Your task to perform on an android device: Open ESPN.com Image 0: 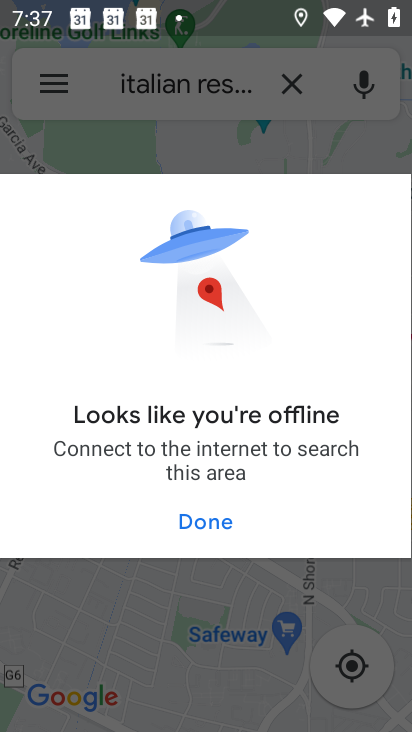
Step 0: press home button
Your task to perform on an android device: Open ESPN.com Image 1: 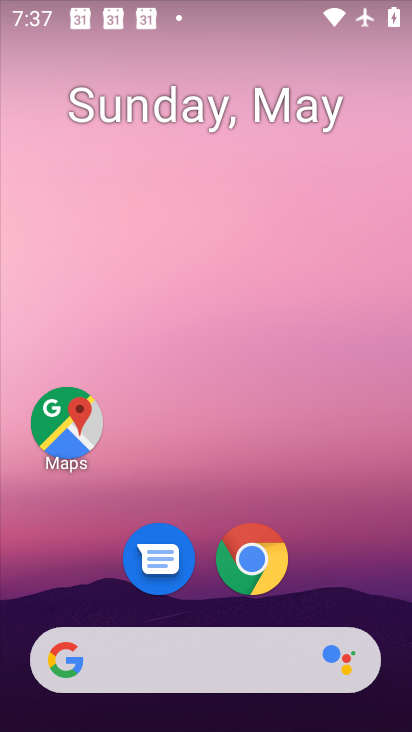
Step 1: click (265, 574)
Your task to perform on an android device: Open ESPN.com Image 2: 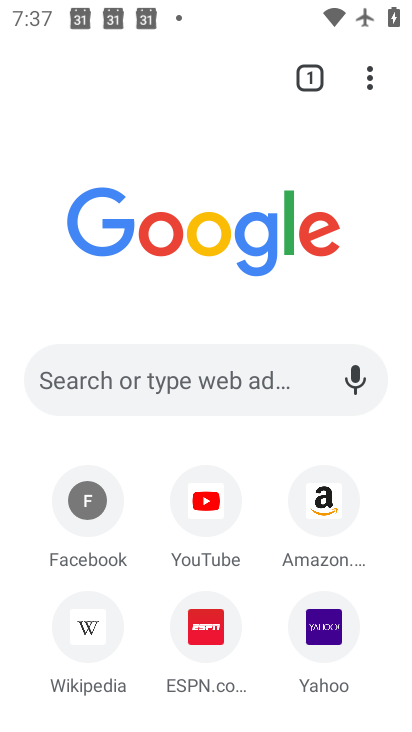
Step 2: click (211, 625)
Your task to perform on an android device: Open ESPN.com Image 3: 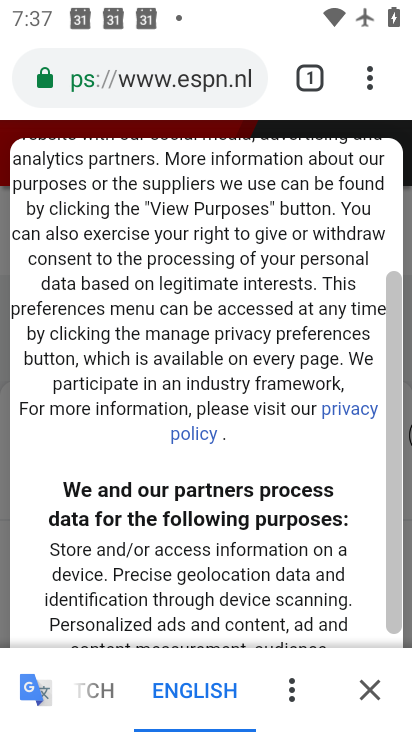
Step 3: drag from (182, 584) to (329, 191)
Your task to perform on an android device: Open ESPN.com Image 4: 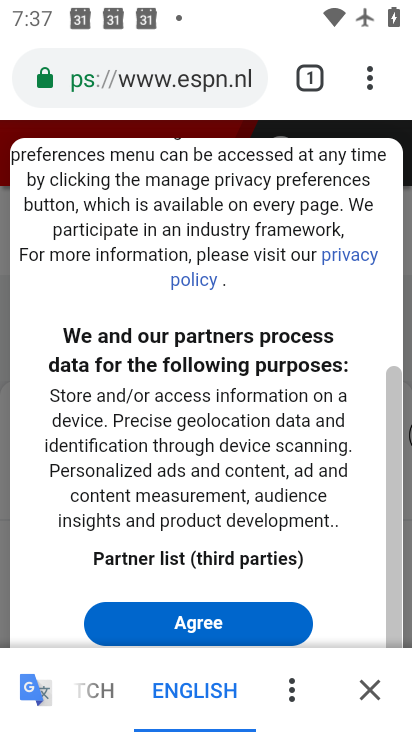
Step 4: click (207, 621)
Your task to perform on an android device: Open ESPN.com Image 5: 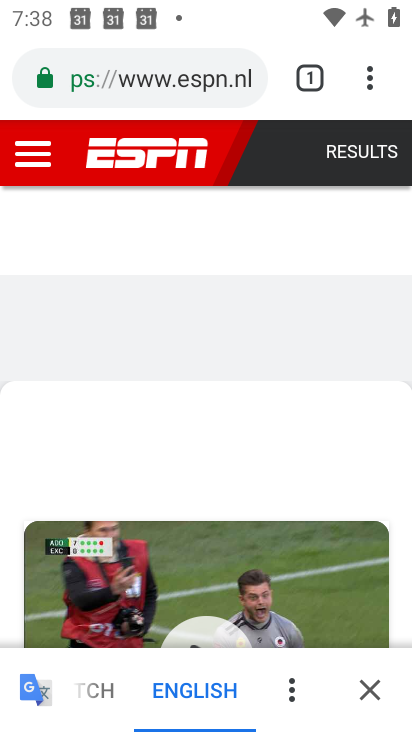
Step 5: task complete